Your task to perform on an android device: change the clock display to analog Image 0: 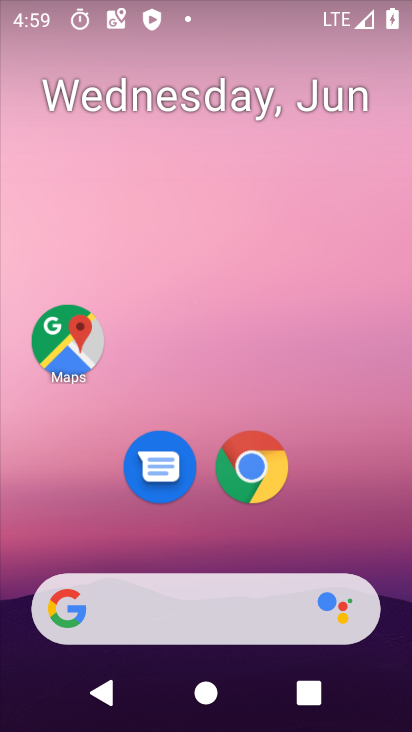
Step 0: drag from (357, 376) to (258, 24)
Your task to perform on an android device: change the clock display to analog Image 1: 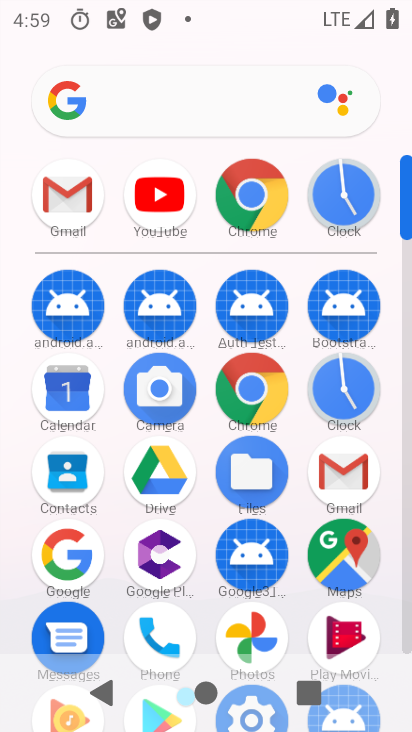
Step 1: click (368, 396)
Your task to perform on an android device: change the clock display to analog Image 2: 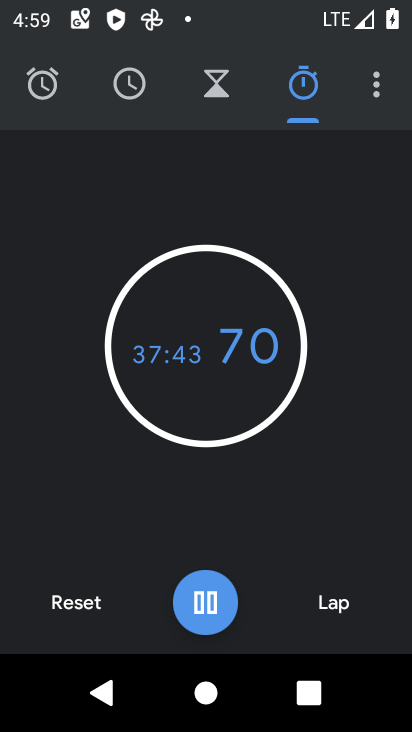
Step 2: click (380, 79)
Your task to perform on an android device: change the clock display to analog Image 3: 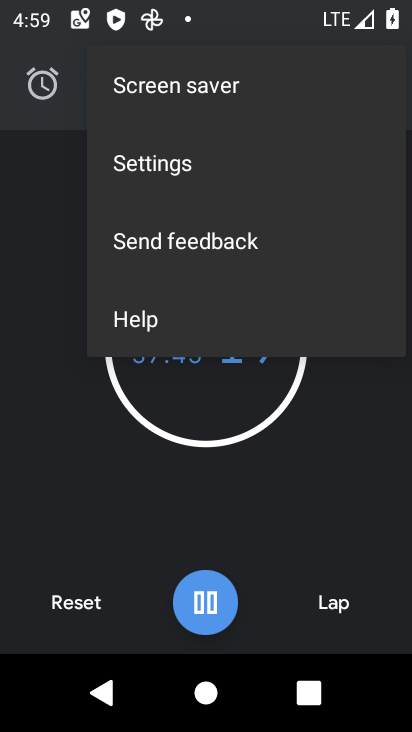
Step 3: click (225, 171)
Your task to perform on an android device: change the clock display to analog Image 4: 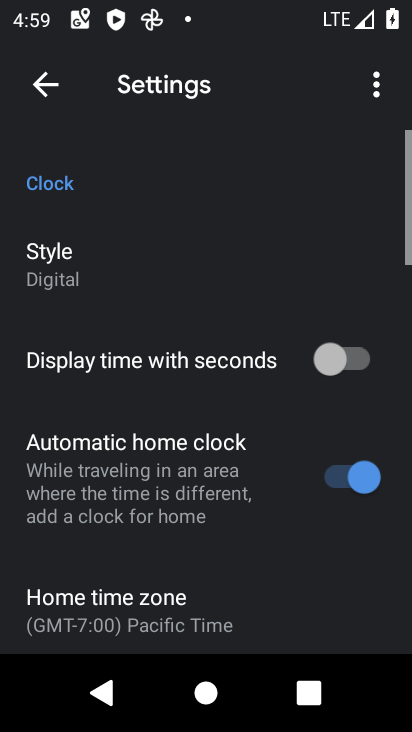
Step 4: click (149, 287)
Your task to perform on an android device: change the clock display to analog Image 5: 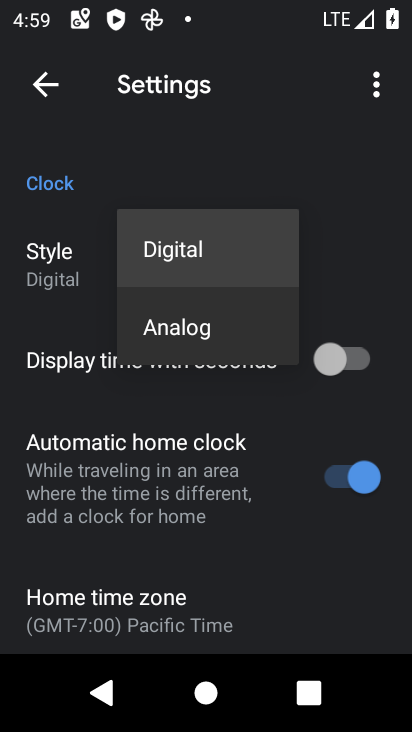
Step 5: click (195, 330)
Your task to perform on an android device: change the clock display to analog Image 6: 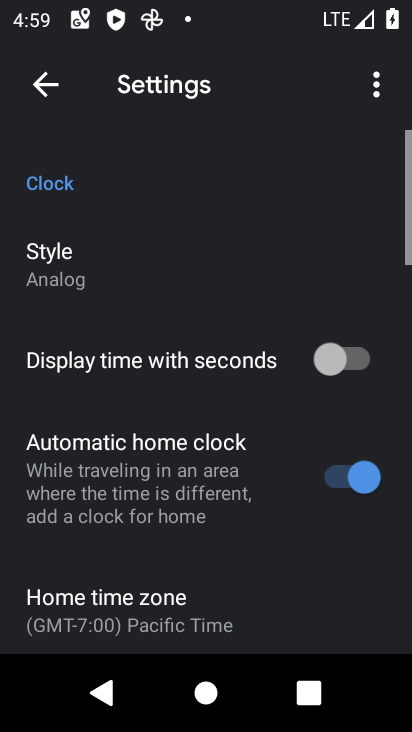
Step 6: task complete